Your task to perform on an android device: Go to internet settings Image 0: 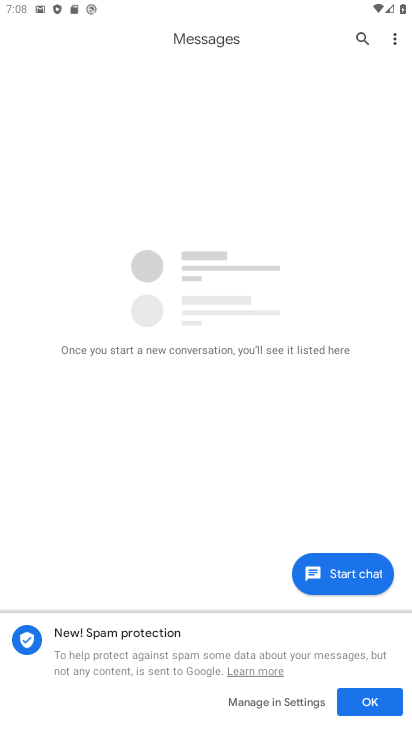
Step 0: press home button
Your task to perform on an android device: Go to internet settings Image 1: 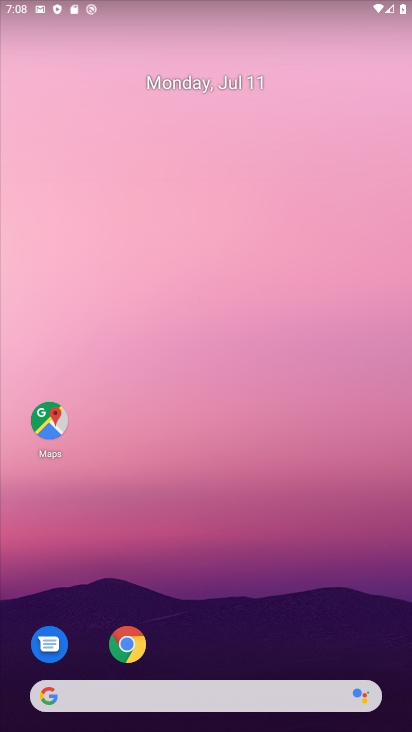
Step 1: drag from (200, 594) to (115, 195)
Your task to perform on an android device: Go to internet settings Image 2: 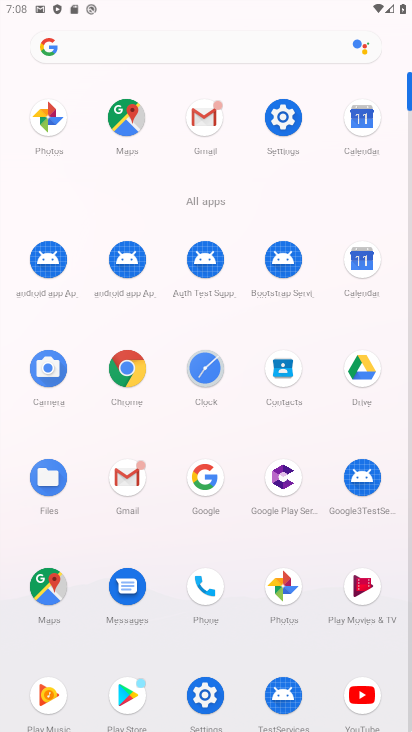
Step 2: click (115, 195)
Your task to perform on an android device: Go to internet settings Image 3: 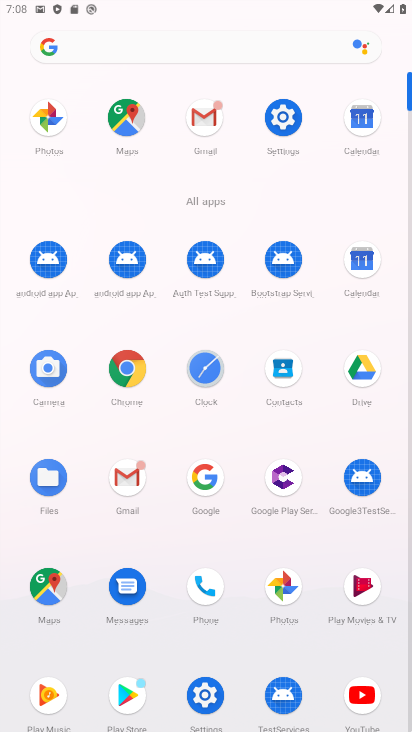
Step 3: click (277, 112)
Your task to perform on an android device: Go to internet settings Image 4: 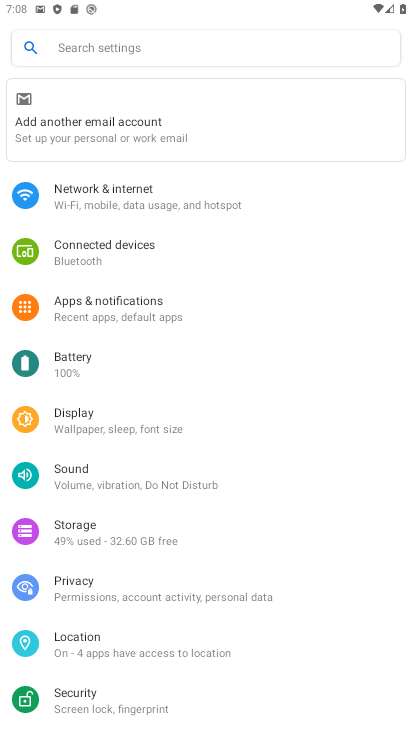
Step 4: click (90, 187)
Your task to perform on an android device: Go to internet settings Image 5: 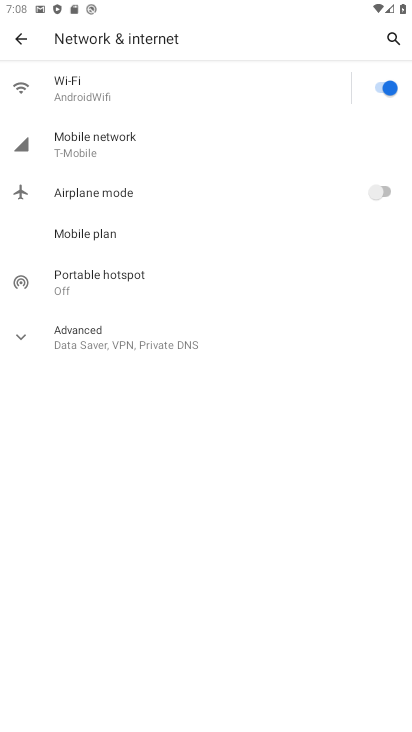
Step 5: click (114, 135)
Your task to perform on an android device: Go to internet settings Image 6: 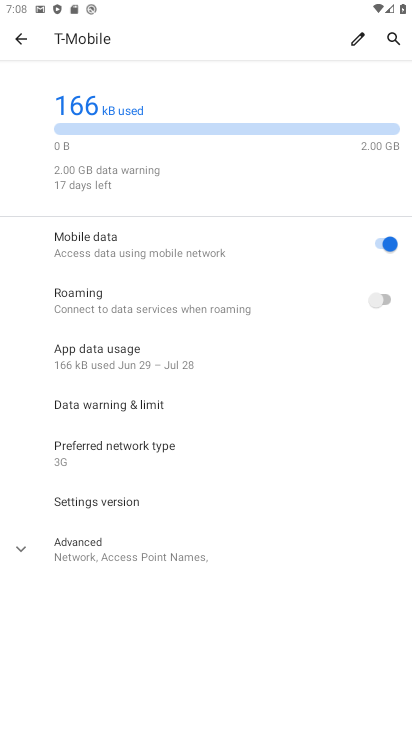
Step 6: task complete